Your task to perform on an android device: allow cookies in the chrome app Image 0: 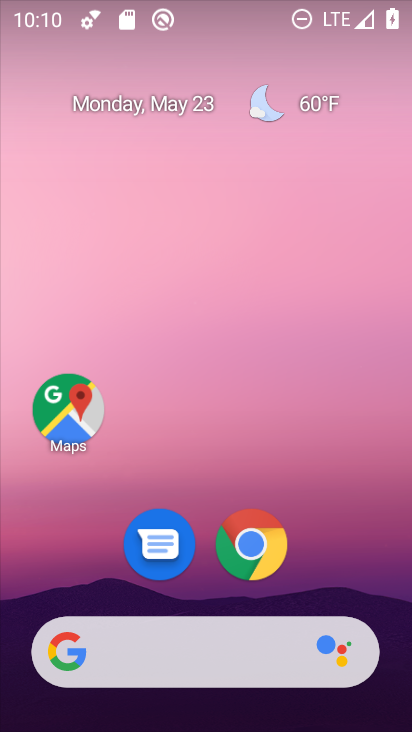
Step 0: click (248, 553)
Your task to perform on an android device: allow cookies in the chrome app Image 1: 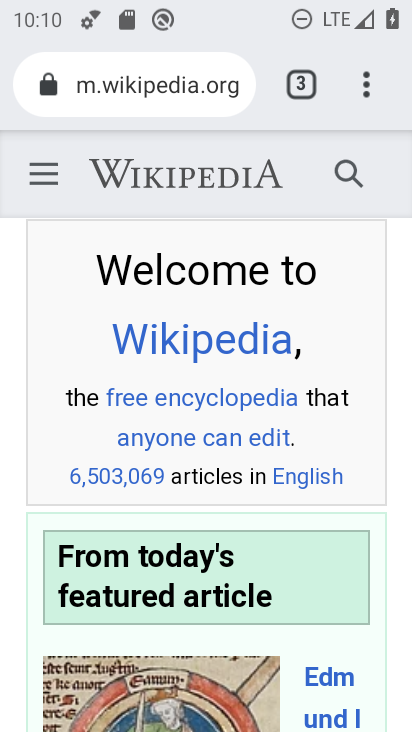
Step 1: click (359, 94)
Your task to perform on an android device: allow cookies in the chrome app Image 2: 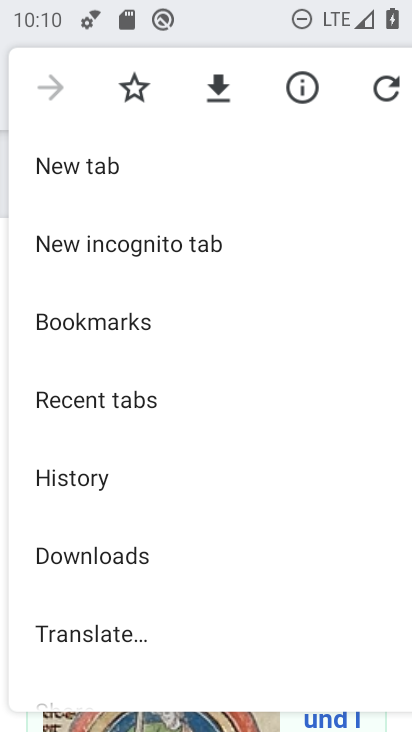
Step 2: drag from (178, 606) to (168, 237)
Your task to perform on an android device: allow cookies in the chrome app Image 3: 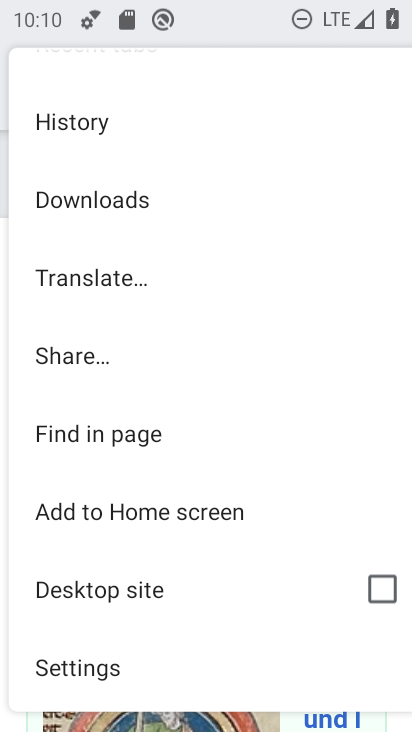
Step 3: click (71, 679)
Your task to perform on an android device: allow cookies in the chrome app Image 4: 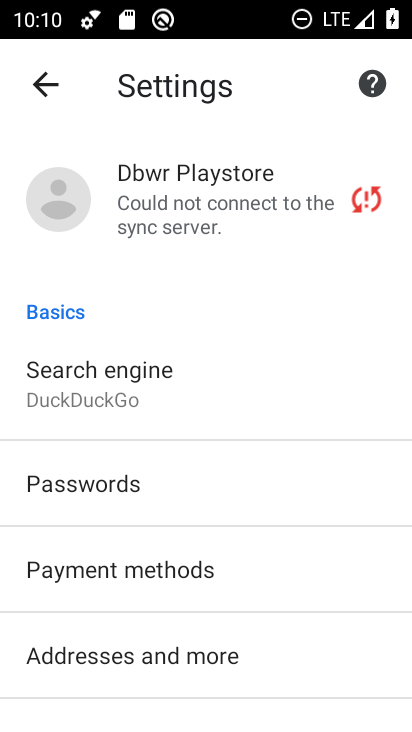
Step 4: drag from (262, 655) to (212, 101)
Your task to perform on an android device: allow cookies in the chrome app Image 5: 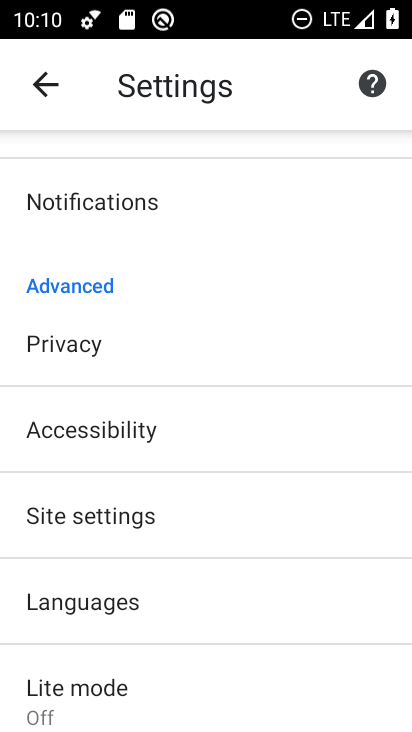
Step 5: click (96, 521)
Your task to perform on an android device: allow cookies in the chrome app Image 6: 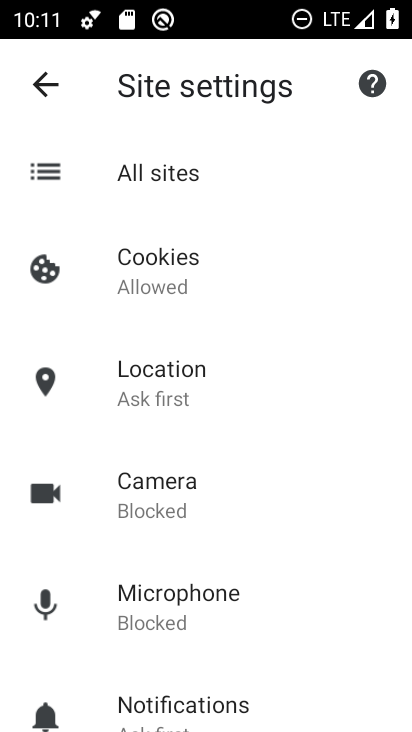
Step 6: click (145, 250)
Your task to perform on an android device: allow cookies in the chrome app Image 7: 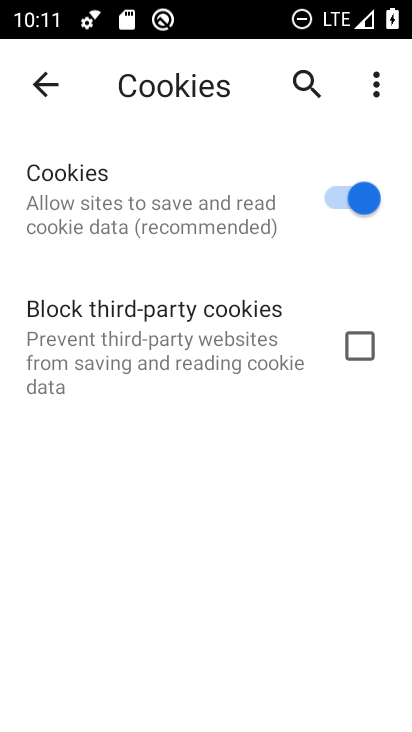
Step 7: task complete